Your task to perform on an android device: open device folders in google photos Image 0: 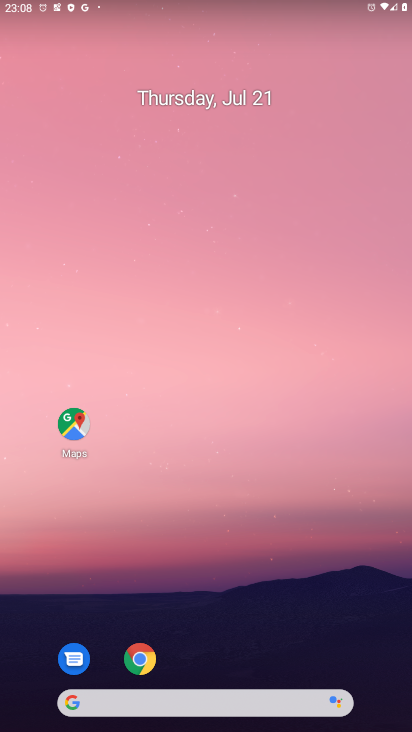
Step 0: drag from (199, 702) to (198, 196)
Your task to perform on an android device: open device folders in google photos Image 1: 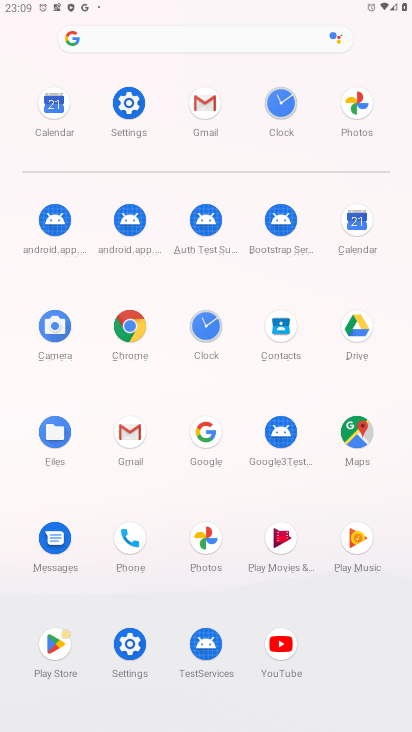
Step 1: click (206, 539)
Your task to perform on an android device: open device folders in google photos Image 2: 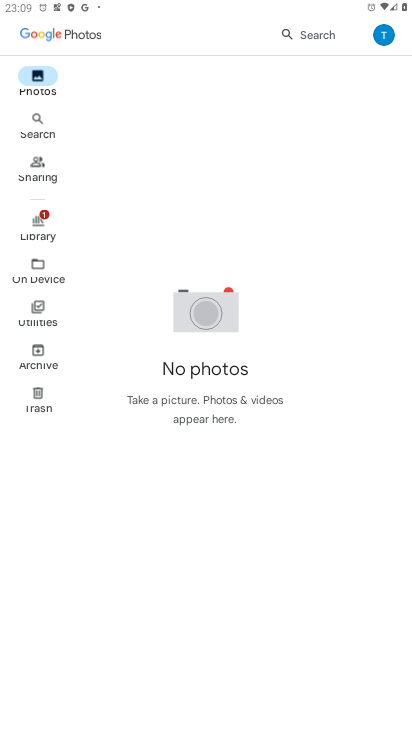
Step 2: click (33, 273)
Your task to perform on an android device: open device folders in google photos Image 3: 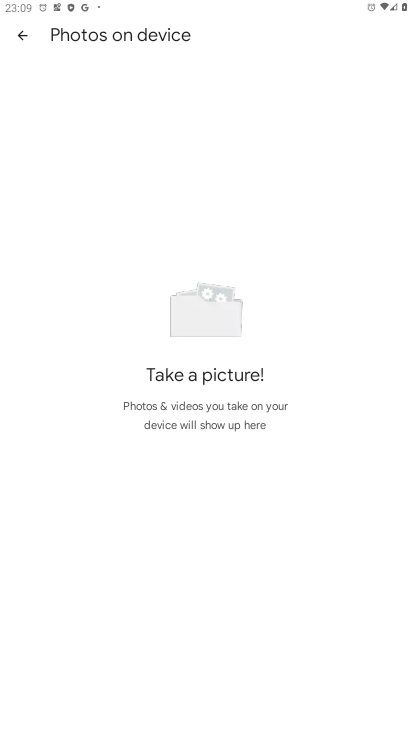
Step 3: task complete